Your task to perform on an android device: What's the weather going to be this weekend? Image 0: 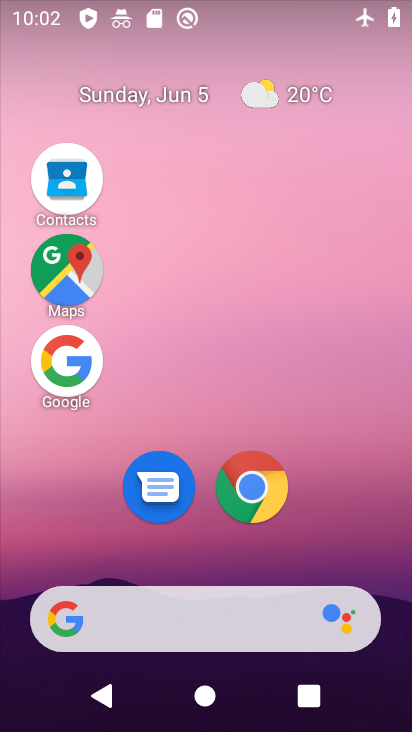
Step 0: drag from (236, 666) to (324, 59)
Your task to perform on an android device: What's the weather going to be this weekend? Image 1: 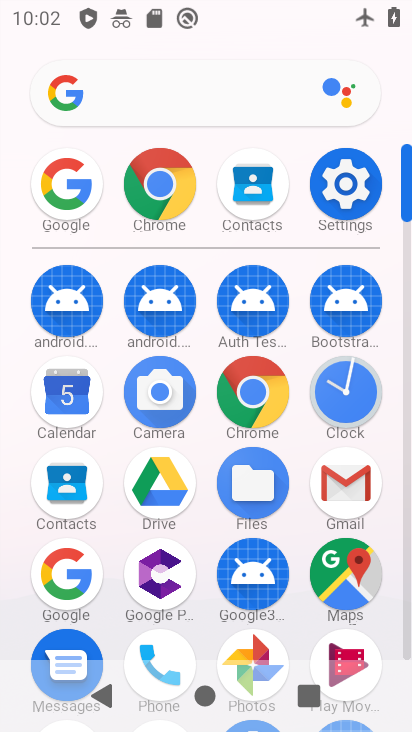
Step 1: click (84, 585)
Your task to perform on an android device: What's the weather going to be this weekend? Image 2: 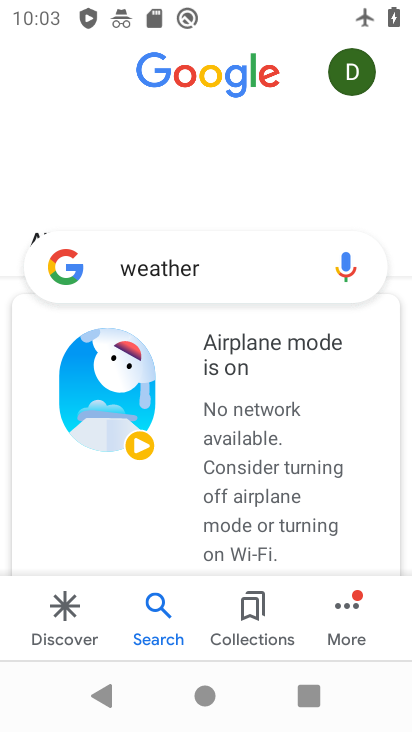
Step 2: task complete